Your task to perform on an android device: open app "Facebook" (install if not already installed) Image 0: 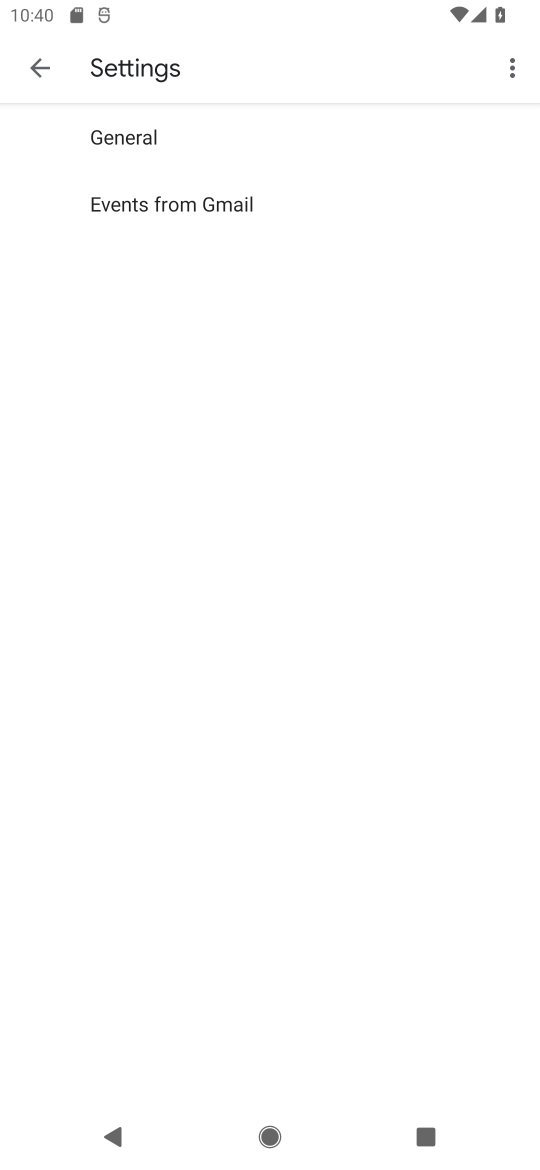
Step 0: press home button
Your task to perform on an android device: open app "Facebook" (install if not already installed) Image 1: 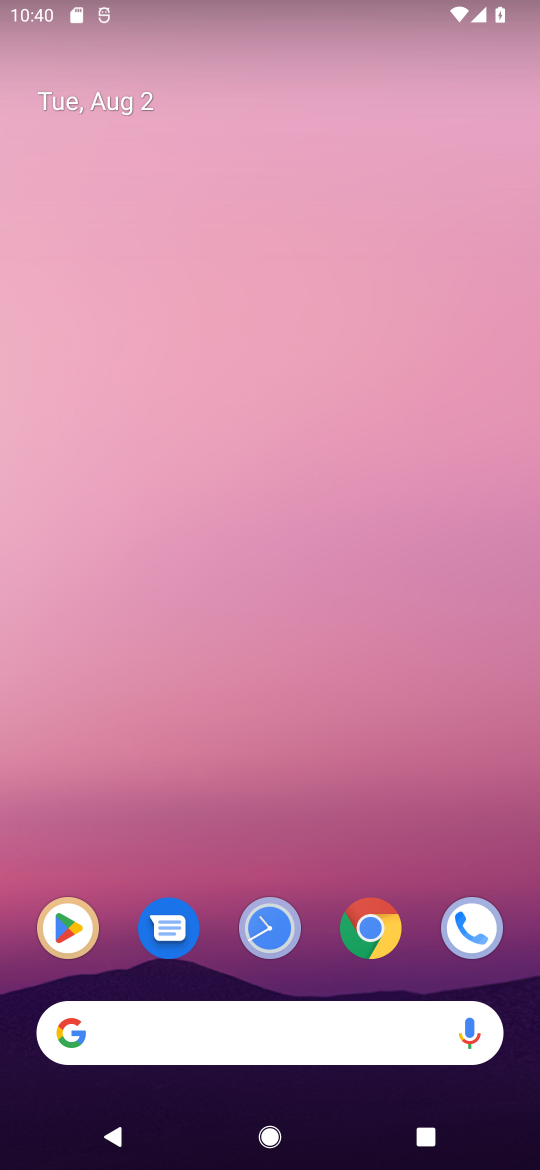
Step 1: click (55, 934)
Your task to perform on an android device: open app "Facebook" (install if not already installed) Image 2: 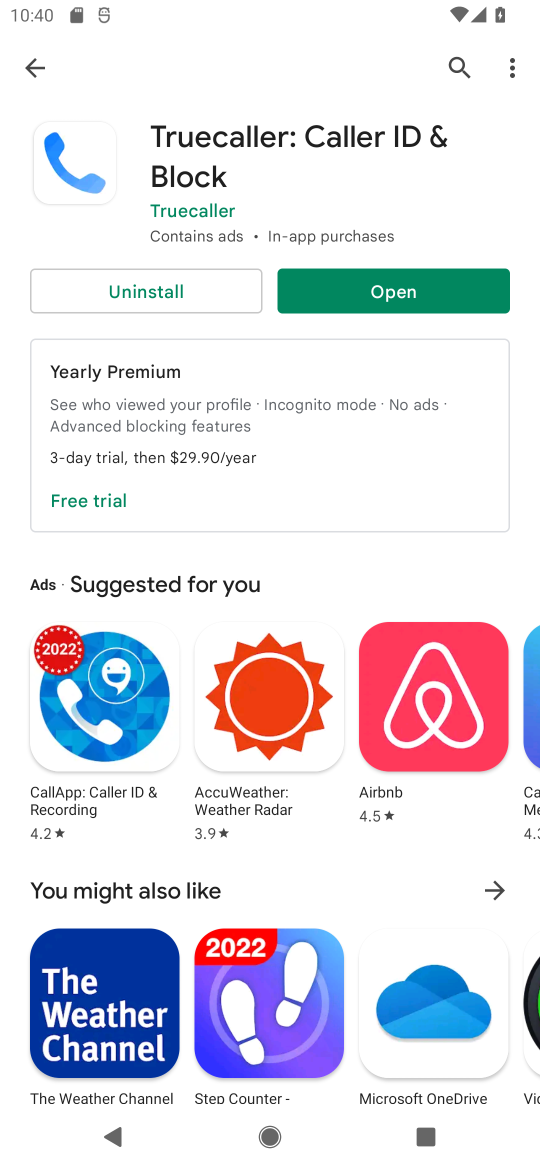
Step 2: click (451, 75)
Your task to perform on an android device: open app "Facebook" (install if not already installed) Image 3: 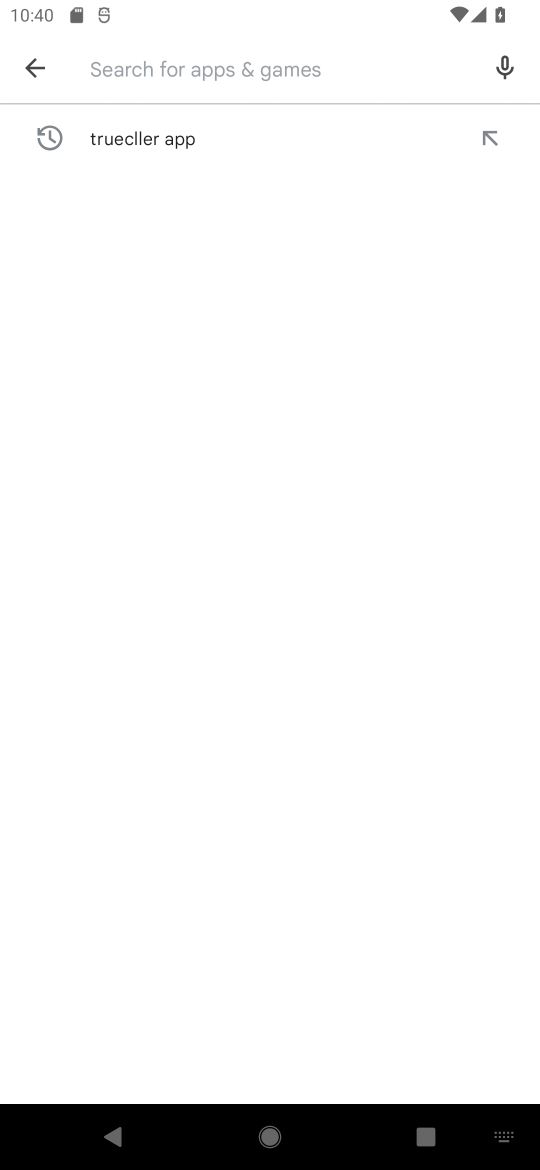
Step 3: type "facebook"
Your task to perform on an android device: open app "Facebook" (install if not already installed) Image 4: 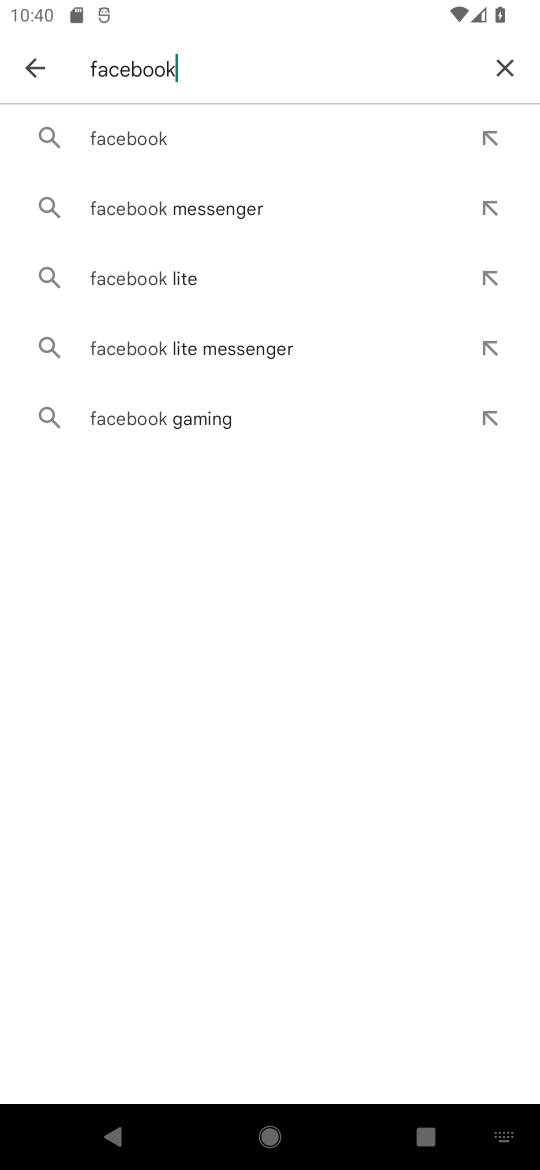
Step 4: click (260, 135)
Your task to perform on an android device: open app "Facebook" (install if not already installed) Image 5: 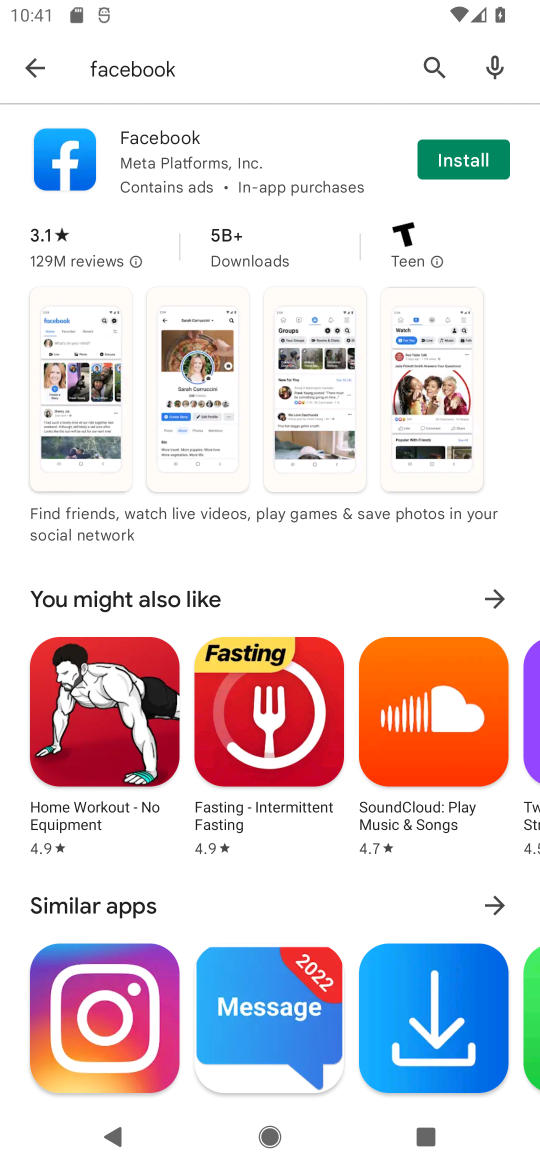
Step 5: click (260, 135)
Your task to perform on an android device: open app "Facebook" (install if not already installed) Image 6: 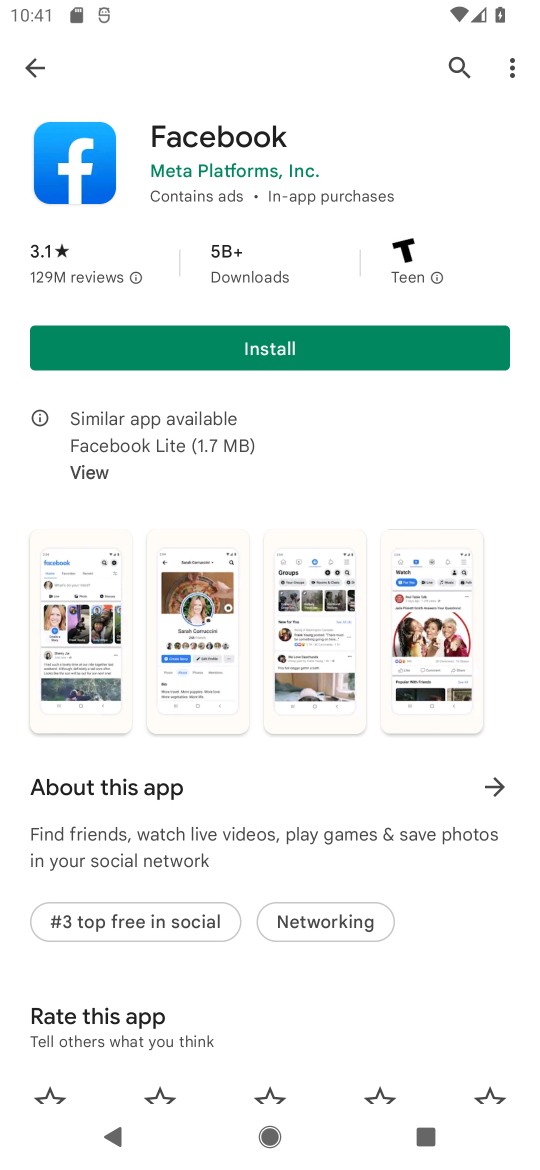
Step 6: click (349, 374)
Your task to perform on an android device: open app "Facebook" (install if not already installed) Image 7: 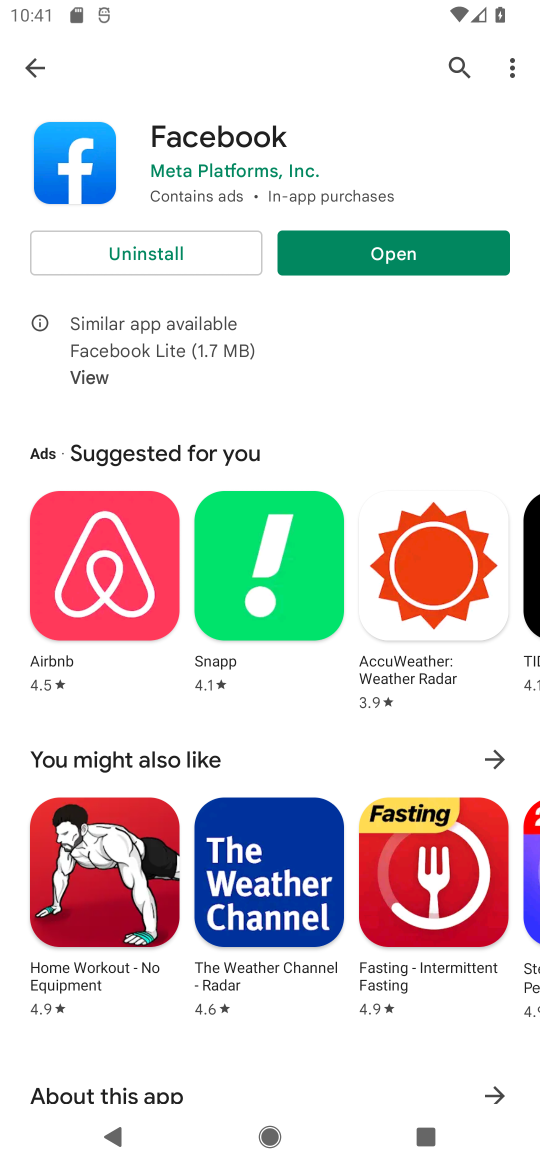
Step 7: click (405, 258)
Your task to perform on an android device: open app "Facebook" (install if not already installed) Image 8: 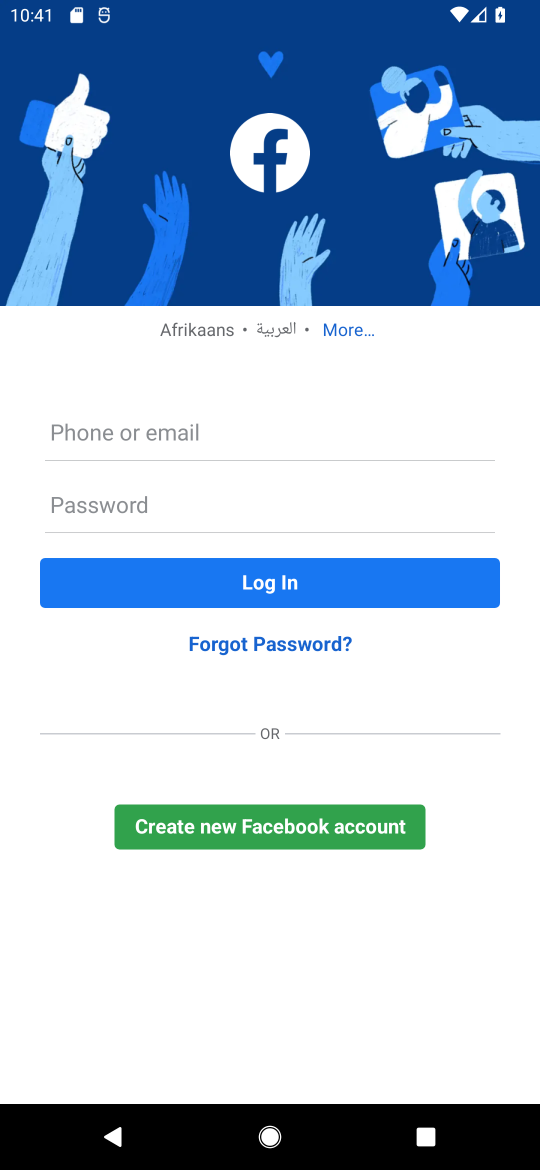
Step 8: task complete